Your task to perform on an android device: turn off sleep mode Image 0: 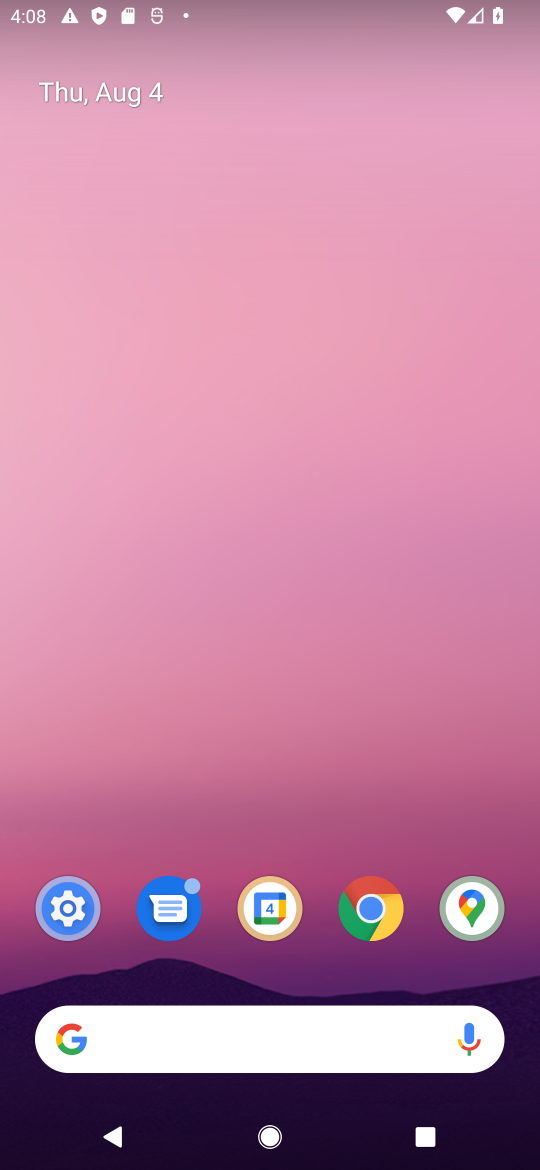
Step 0: drag from (348, 849) to (157, 74)
Your task to perform on an android device: turn off sleep mode Image 1: 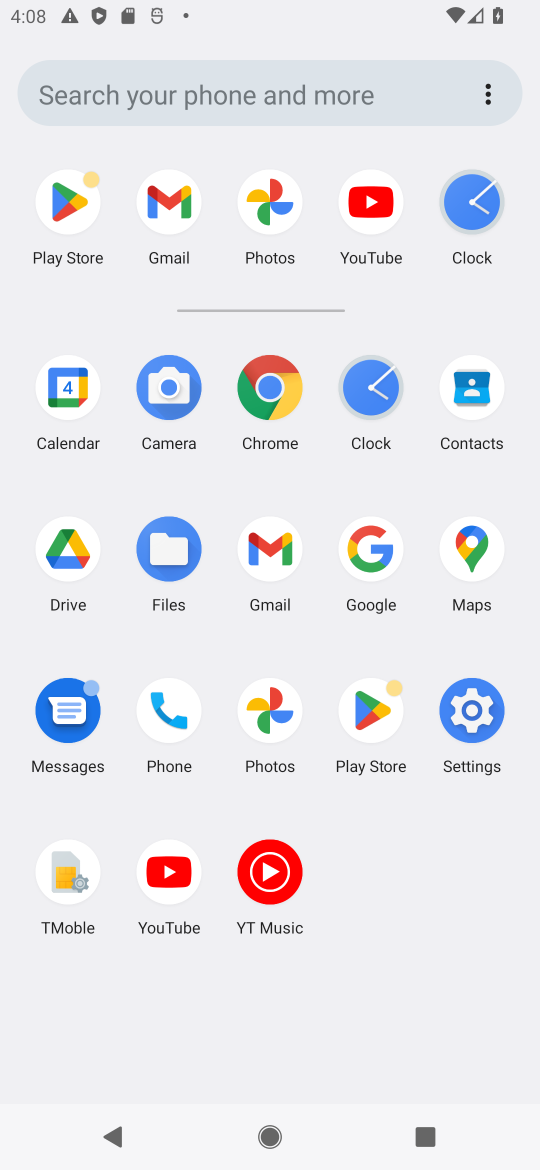
Step 1: click (462, 722)
Your task to perform on an android device: turn off sleep mode Image 2: 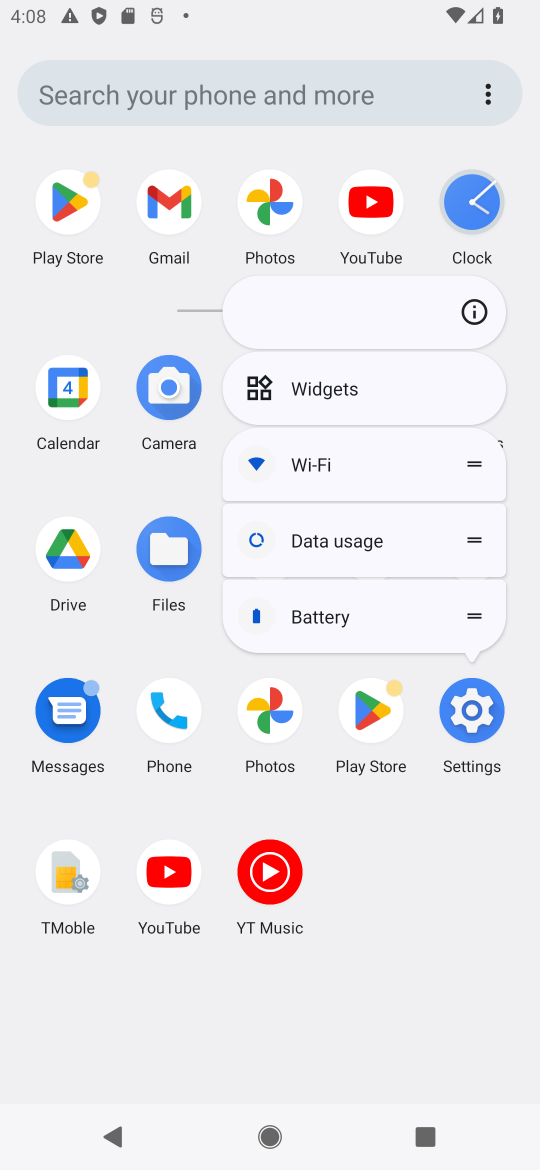
Step 2: click (462, 720)
Your task to perform on an android device: turn off sleep mode Image 3: 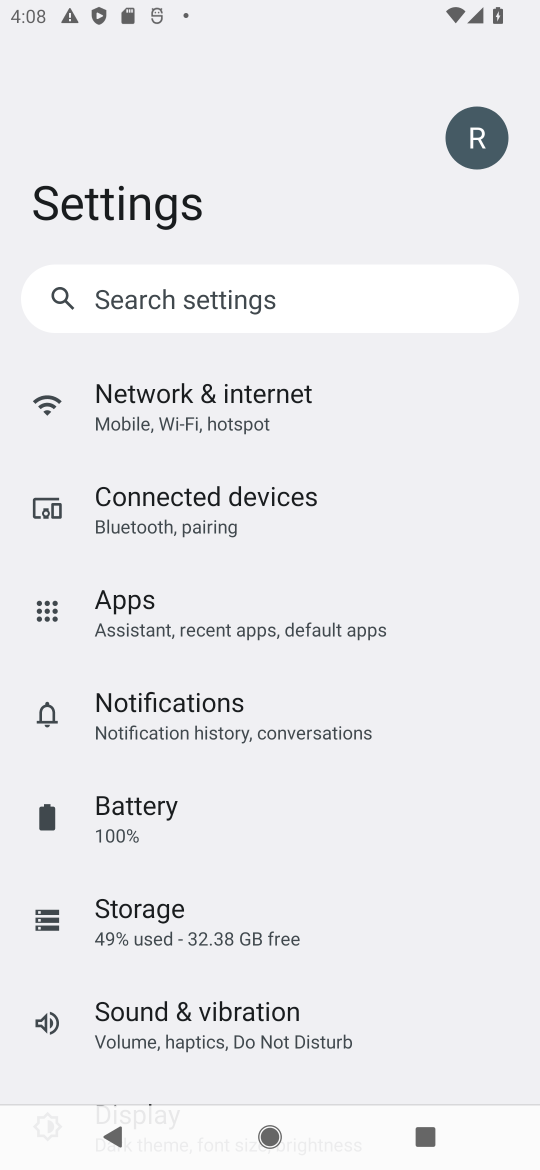
Step 3: drag from (185, 990) to (101, 378)
Your task to perform on an android device: turn off sleep mode Image 4: 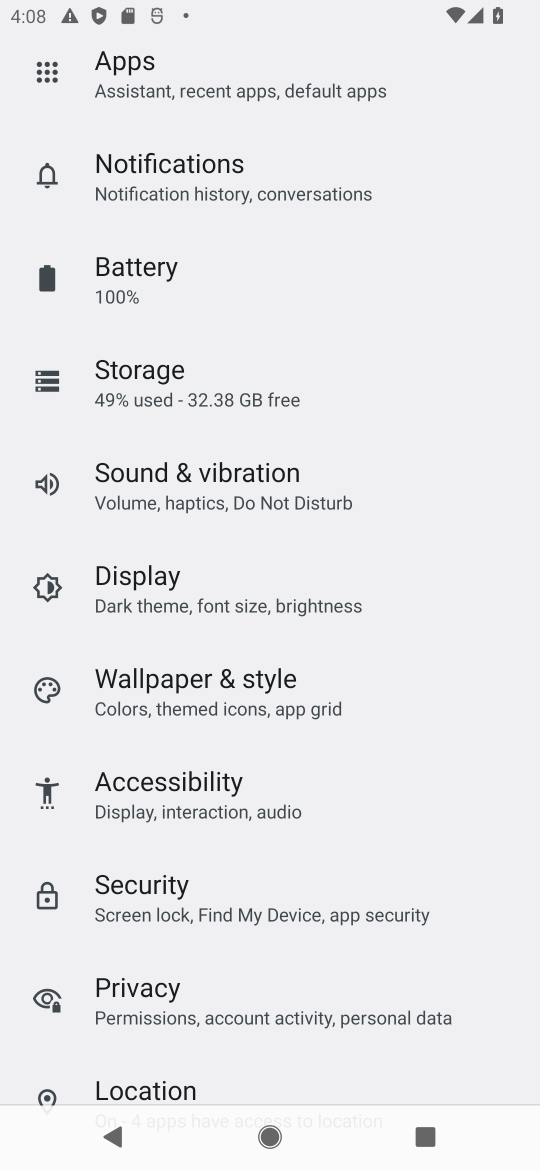
Step 4: drag from (186, 267) to (264, 956)
Your task to perform on an android device: turn off sleep mode Image 5: 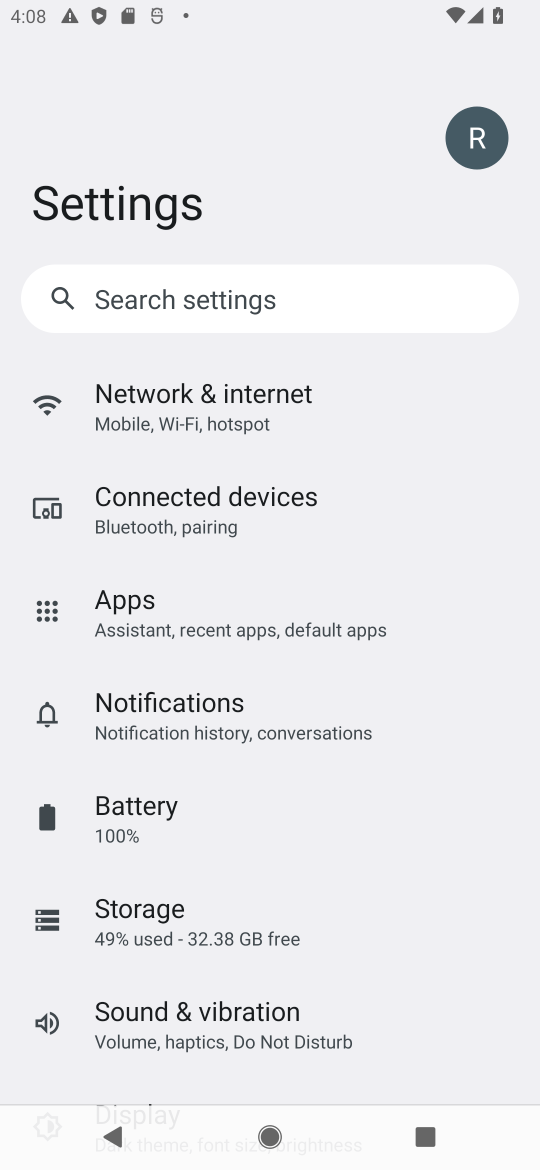
Step 5: drag from (249, 920) to (178, 310)
Your task to perform on an android device: turn off sleep mode Image 6: 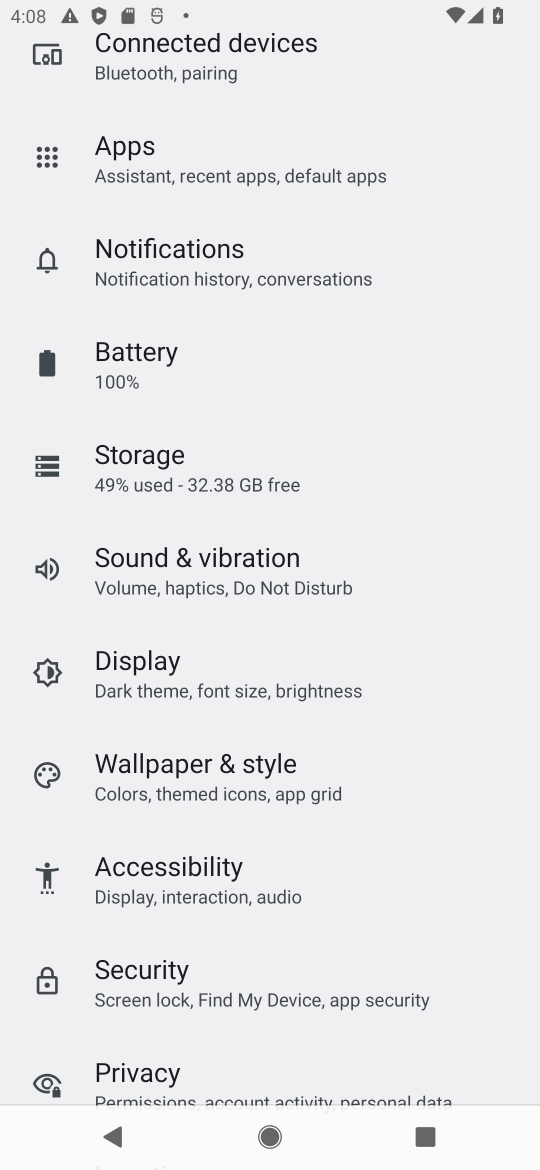
Step 6: click (175, 669)
Your task to perform on an android device: turn off sleep mode Image 7: 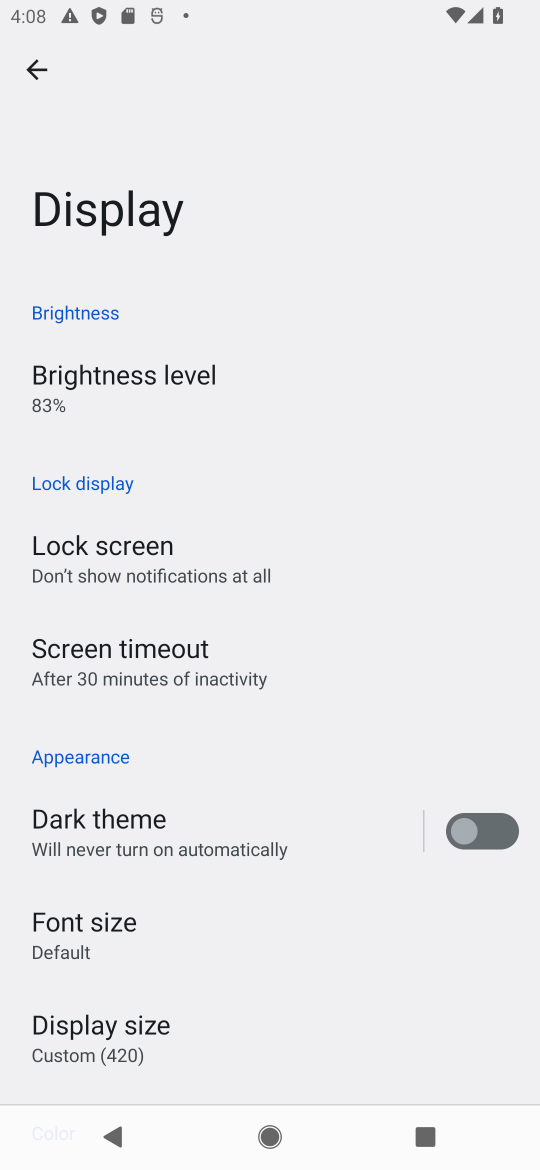
Step 7: click (177, 660)
Your task to perform on an android device: turn off sleep mode Image 8: 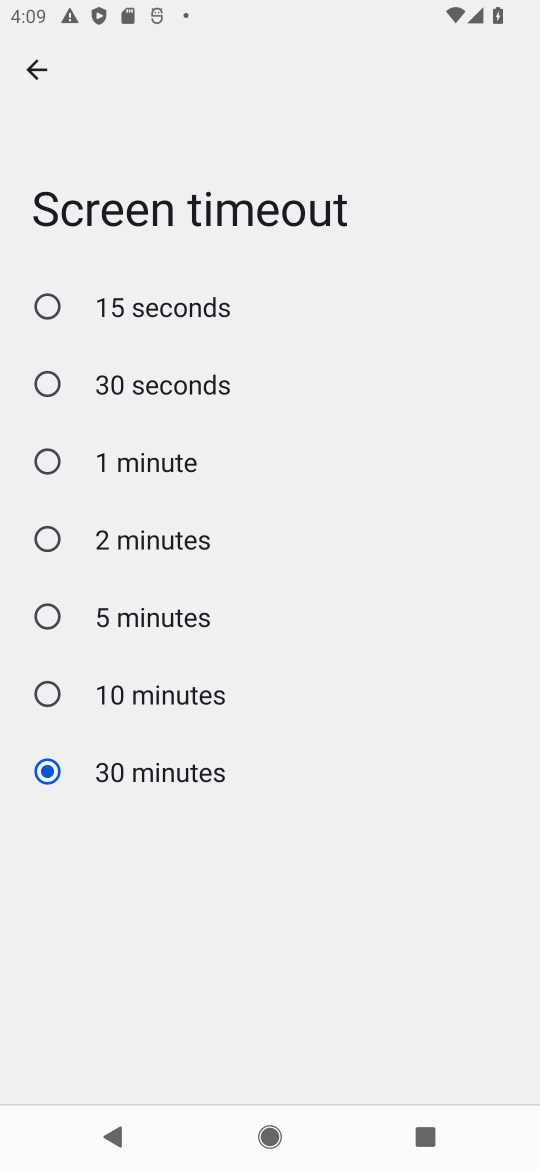
Step 8: task complete